Your task to perform on an android device: Empty the shopping cart on bestbuy. Add razer deathadder to the cart on bestbuy, then select checkout. Image 0: 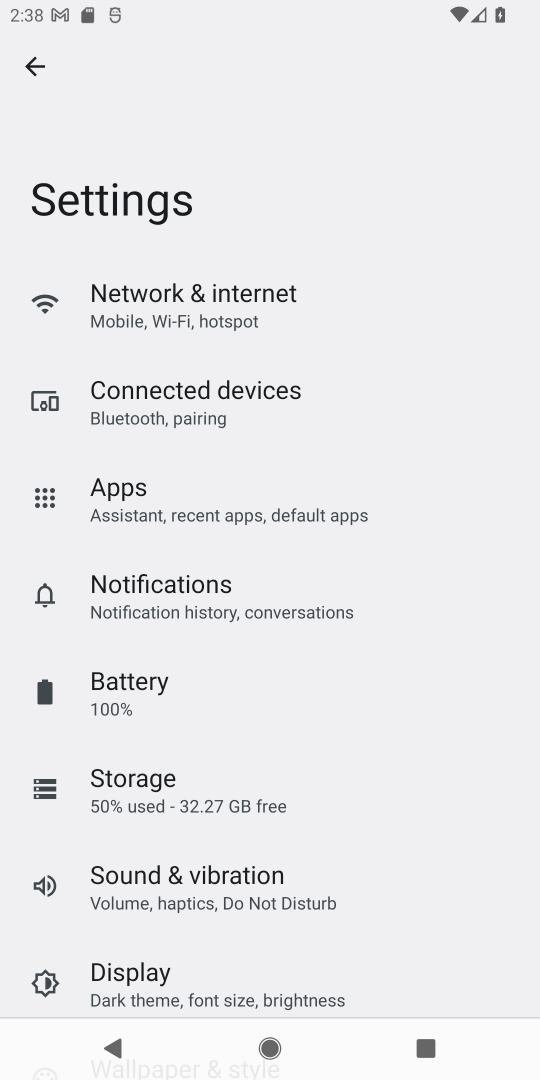
Step 0: press home button
Your task to perform on an android device: Empty the shopping cart on bestbuy. Add razer deathadder to the cart on bestbuy, then select checkout. Image 1: 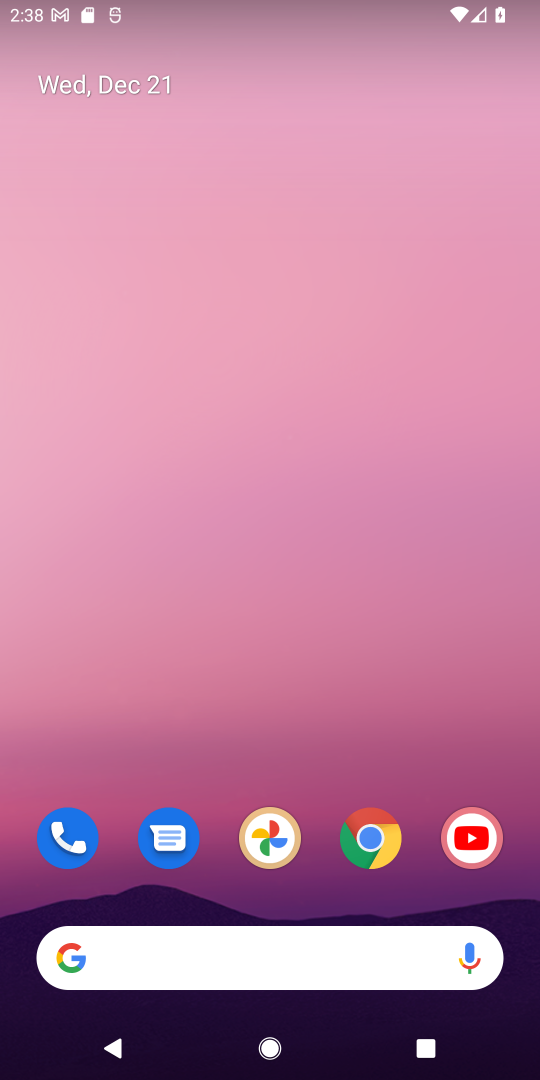
Step 1: click (385, 837)
Your task to perform on an android device: Empty the shopping cart on bestbuy. Add razer deathadder to the cart on bestbuy, then select checkout. Image 2: 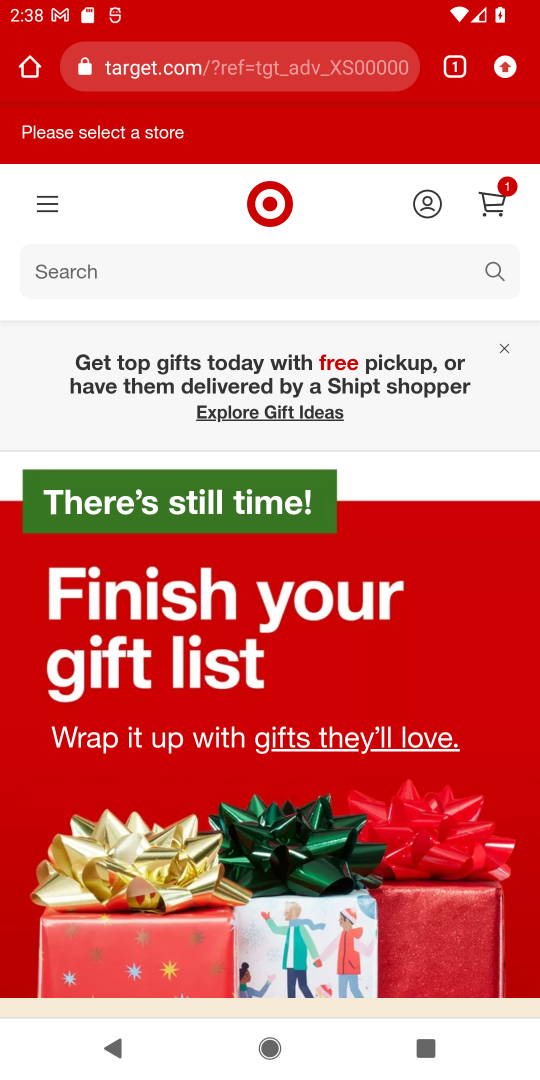
Step 2: click (254, 76)
Your task to perform on an android device: Empty the shopping cart on bestbuy. Add razer deathadder to the cart on bestbuy, then select checkout. Image 3: 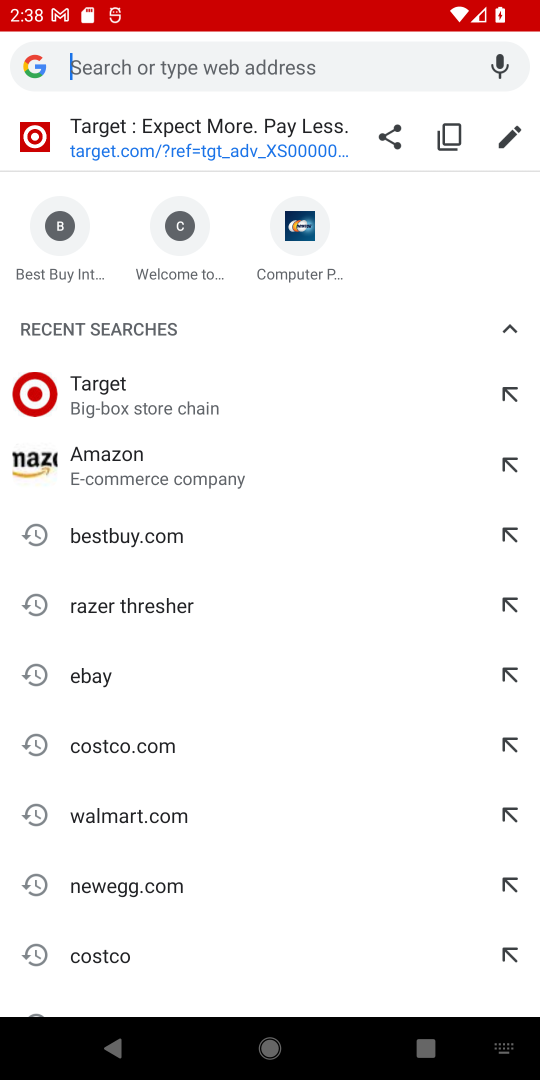
Step 3: type "bestbuy"
Your task to perform on an android device: Empty the shopping cart on bestbuy. Add razer deathadder to the cart on bestbuy, then select checkout. Image 4: 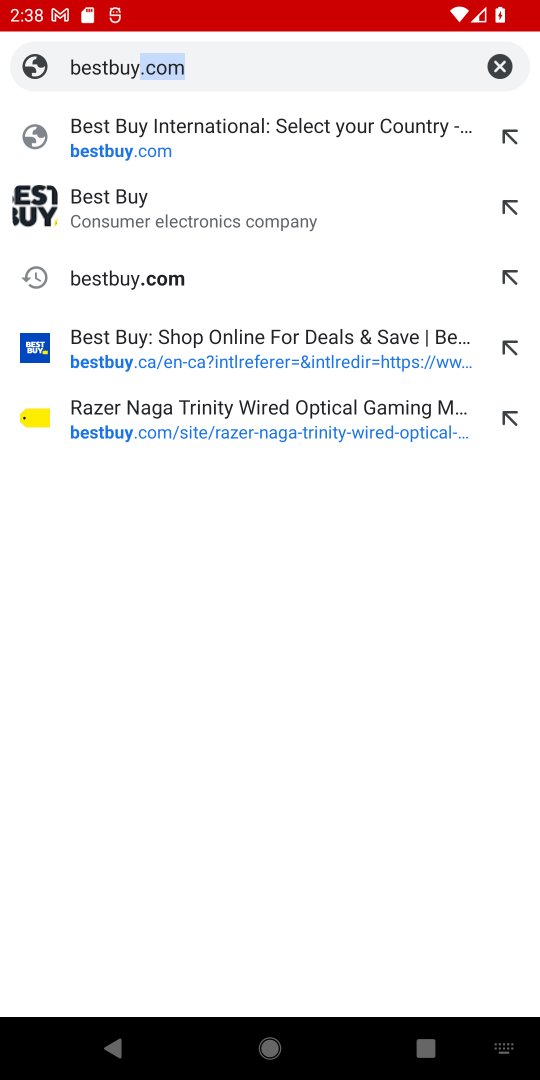
Step 4: click (172, 136)
Your task to perform on an android device: Empty the shopping cart on bestbuy. Add razer deathadder to the cart on bestbuy, then select checkout. Image 5: 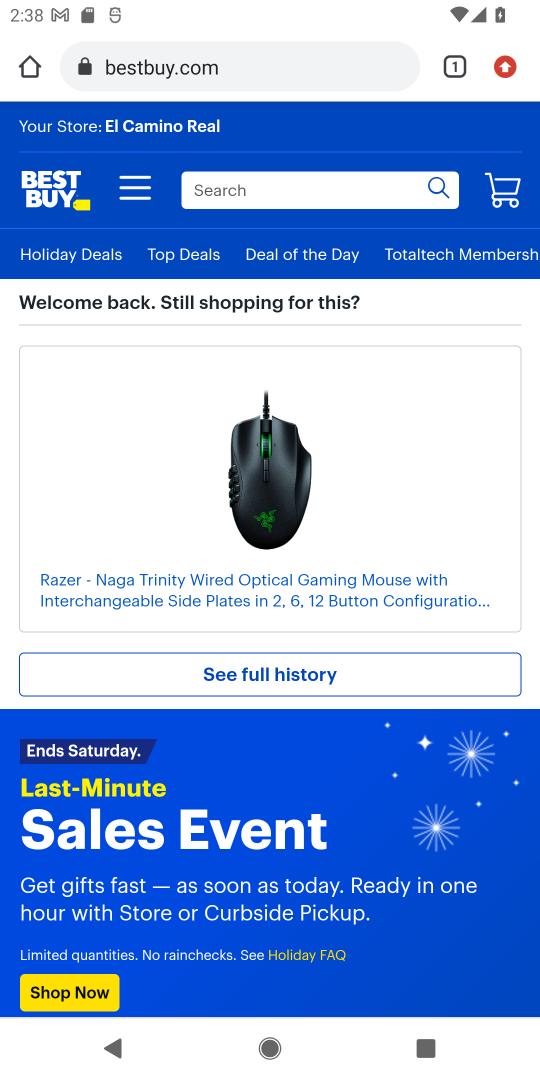
Step 5: click (229, 186)
Your task to perform on an android device: Empty the shopping cart on bestbuy. Add razer deathadder to the cart on bestbuy, then select checkout. Image 6: 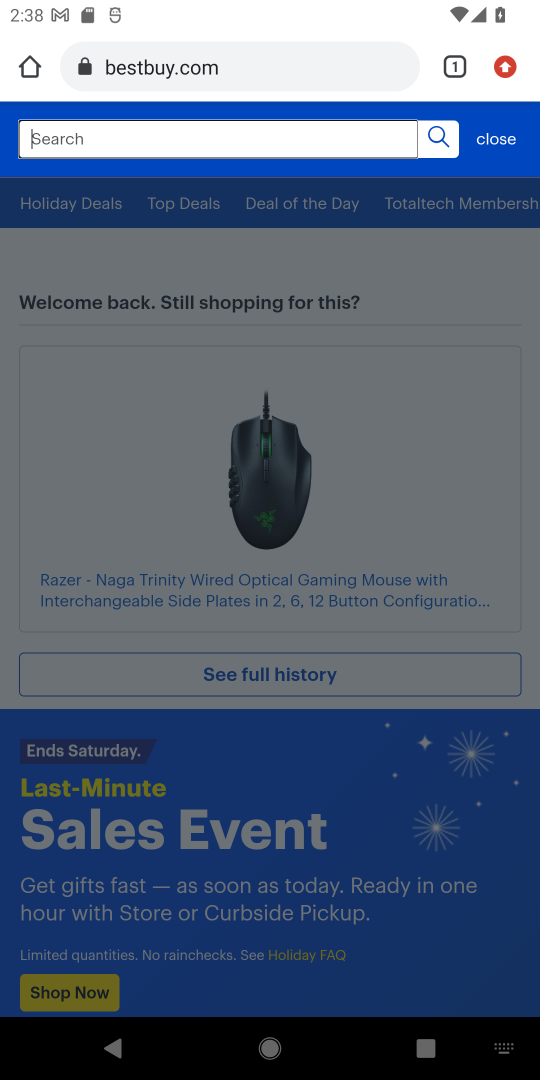
Step 6: type "razer deathadder"
Your task to perform on an android device: Empty the shopping cart on bestbuy. Add razer deathadder to the cart on bestbuy, then select checkout. Image 7: 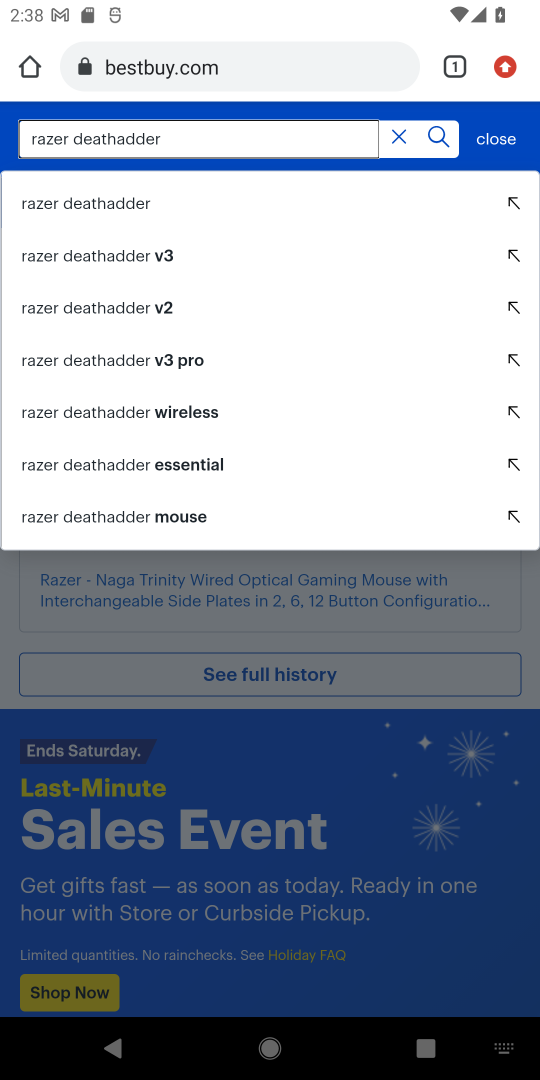
Step 7: click (445, 138)
Your task to perform on an android device: Empty the shopping cart on bestbuy. Add razer deathadder to the cart on bestbuy, then select checkout. Image 8: 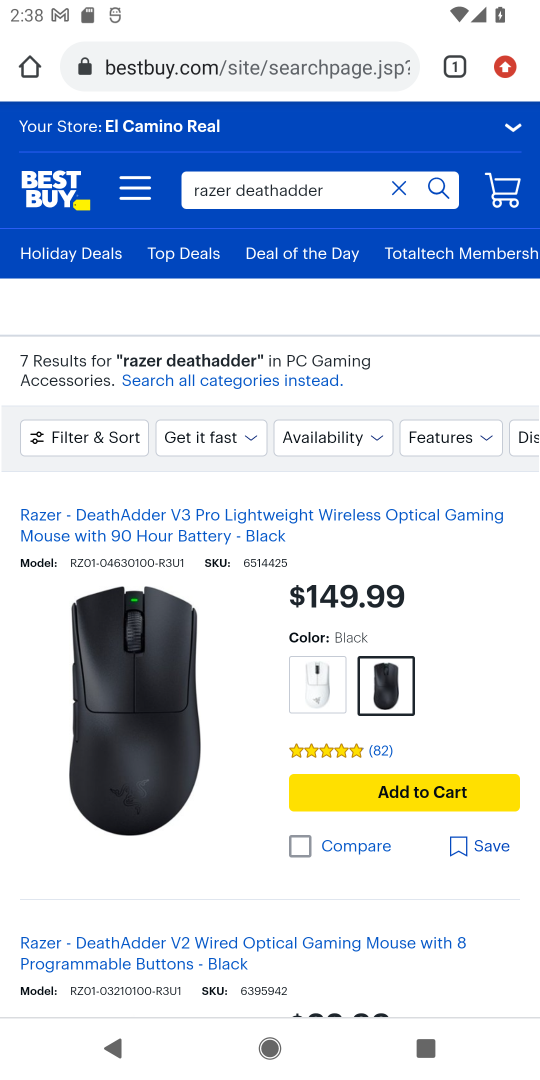
Step 8: click (131, 769)
Your task to perform on an android device: Empty the shopping cart on bestbuy. Add razer deathadder to the cart on bestbuy, then select checkout. Image 9: 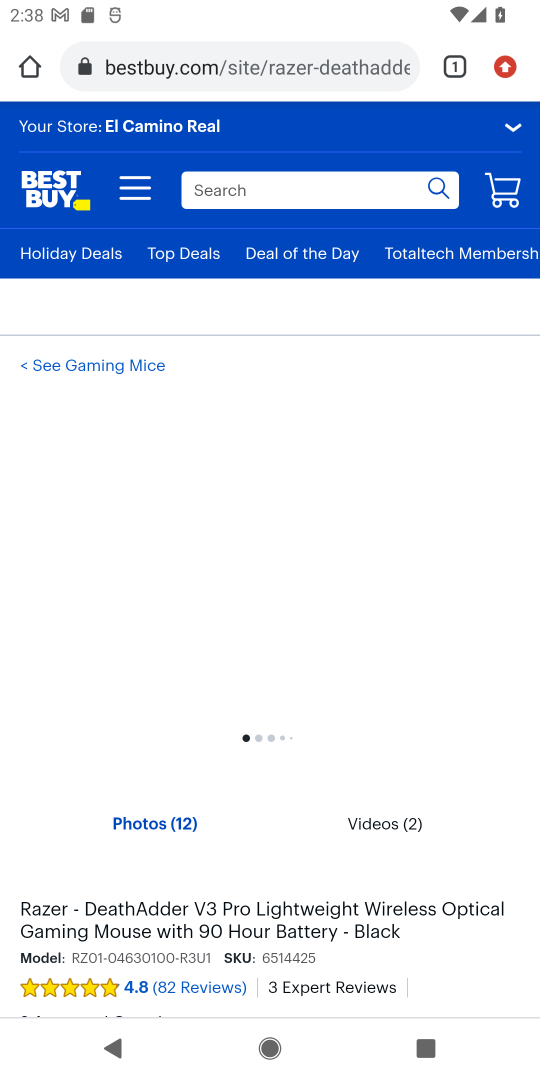
Step 9: drag from (111, 878) to (186, 504)
Your task to perform on an android device: Empty the shopping cart on bestbuy. Add razer deathadder to the cart on bestbuy, then select checkout. Image 10: 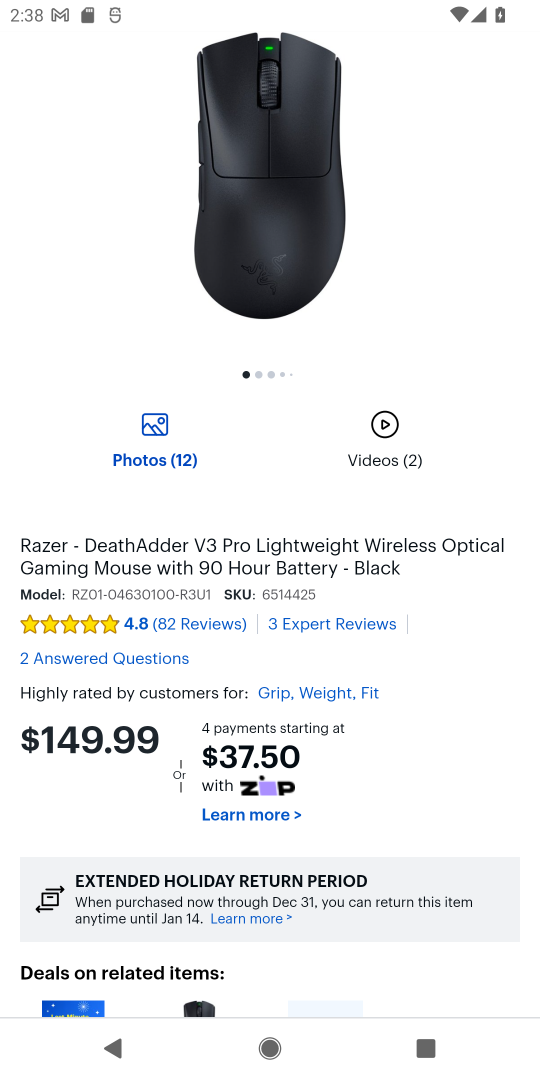
Step 10: drag from (310, 847) to (350, 480)
Your task to perform on an android device: Empty the shopping cart on bestbuy. Add razer deathadder to the cart on bestbuy, then select checkout. Image 11: 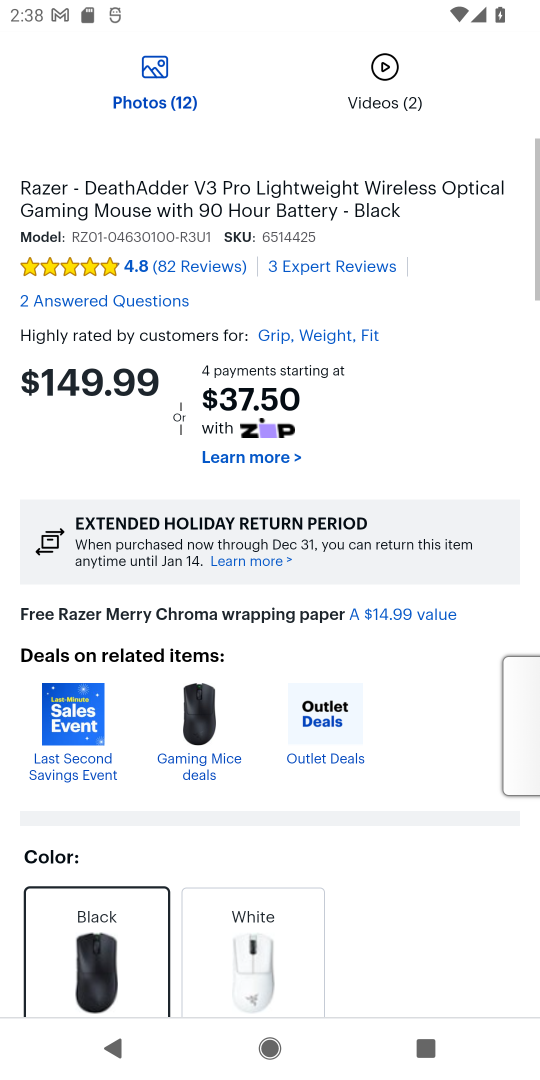
Step 11: click (350, 480)
Your task to perform on an android device: Empty the shopping cart on bestbuy. Add razer deathadder to the cart on bestbuy, then select checkout. Image 12: 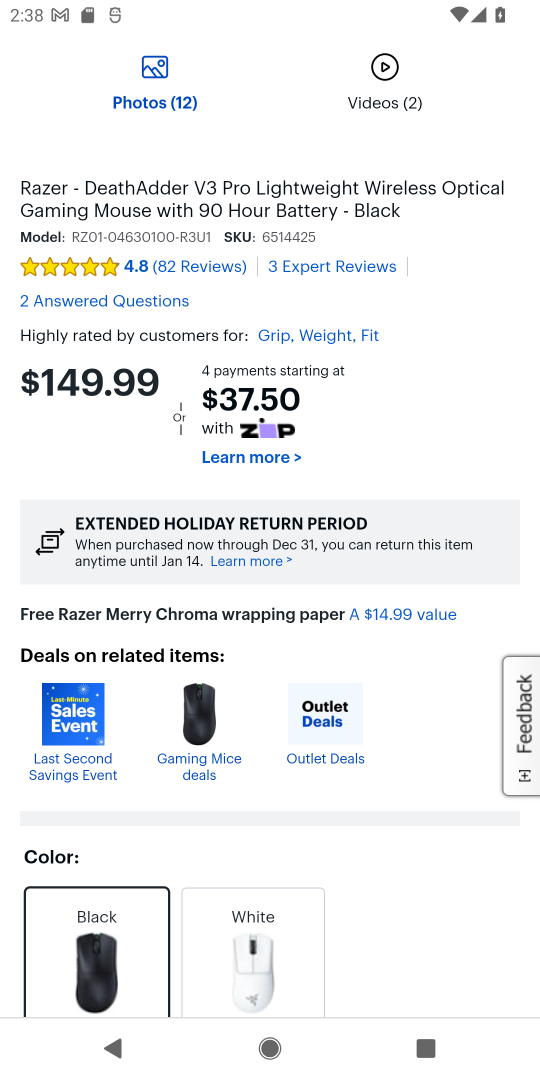
Step 12: drag from (359, 807) to (396, 303)
Your task to perform on an android device: Empty the shopping cart on bestbuy. Add razer deathadder to the cart on bestbuy, then select checkout. Image 13: 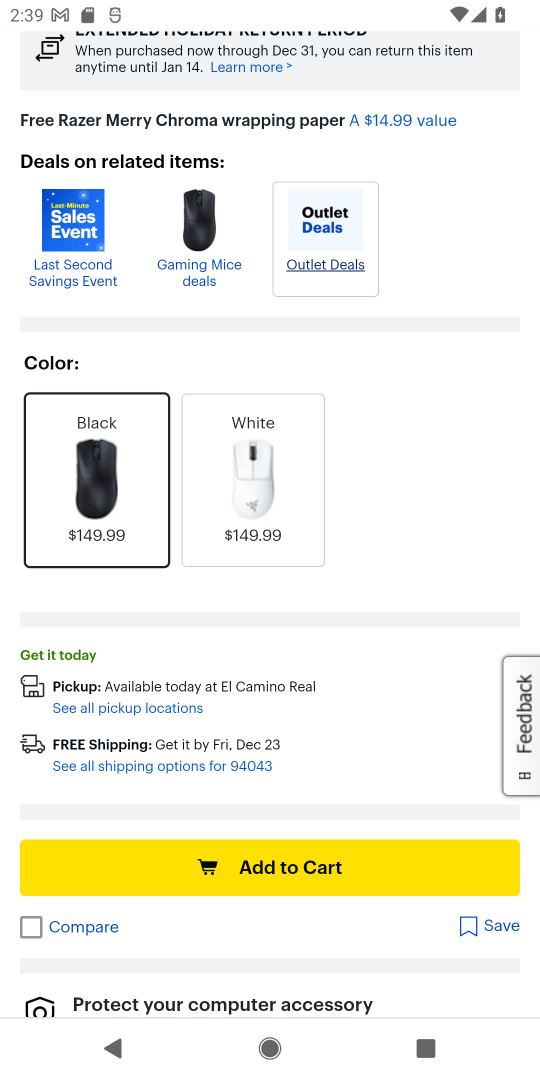
Step 13: click (269, 856)
Your task to perform on an android device: Empty the shopping cart on bestbuy. Add razer deathadder to the cart on bestbuy, then select checkout. Image 14: 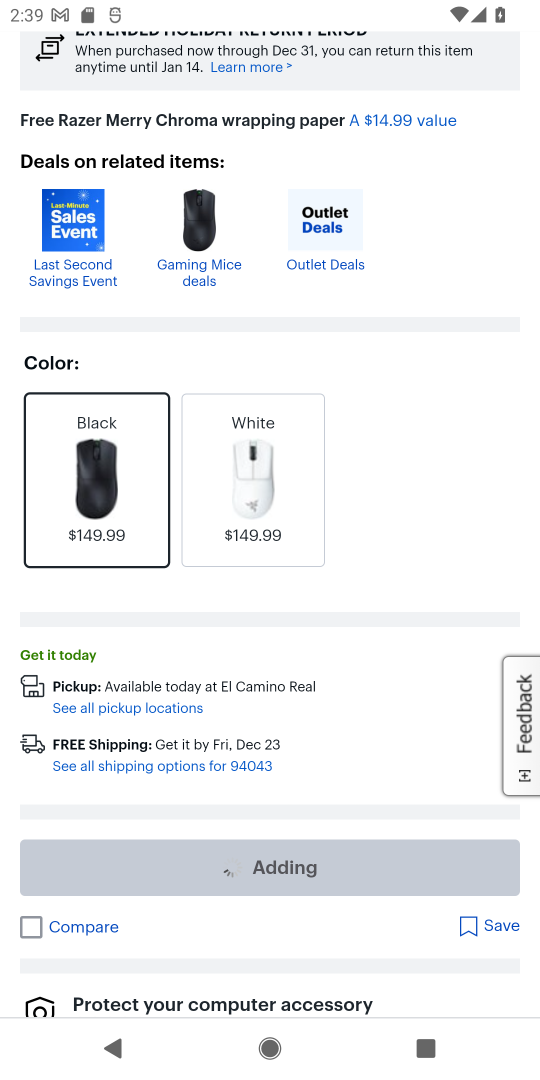
Step 14: task complete